Your task to perform on an android device: find snoozed emails in the gmail app Image 0: 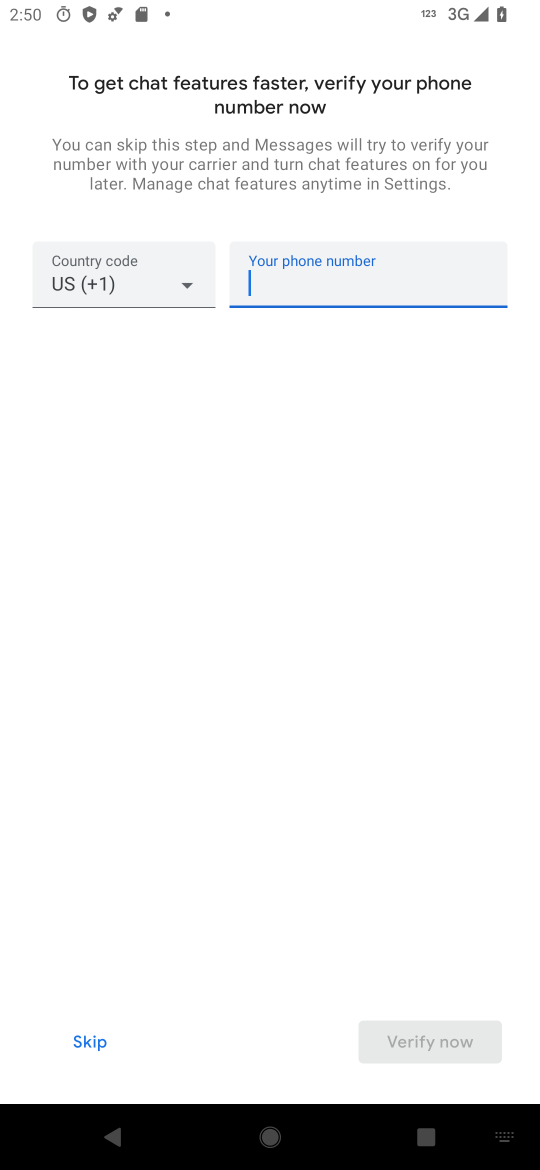
Step 0: press home button
Your task to perform on an android device: find snoozed emails in the gmail app Image 1: 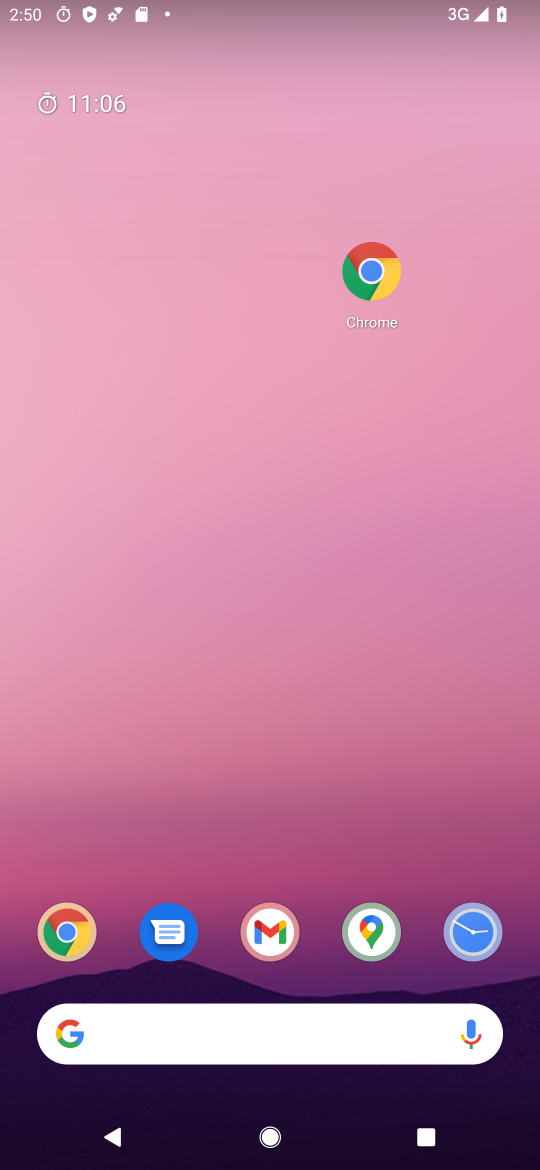
Step 1: drag from (395, 951) to (539, 764)
Your task to perform on an android device: find snoozed emails in the gmail app Image 2: 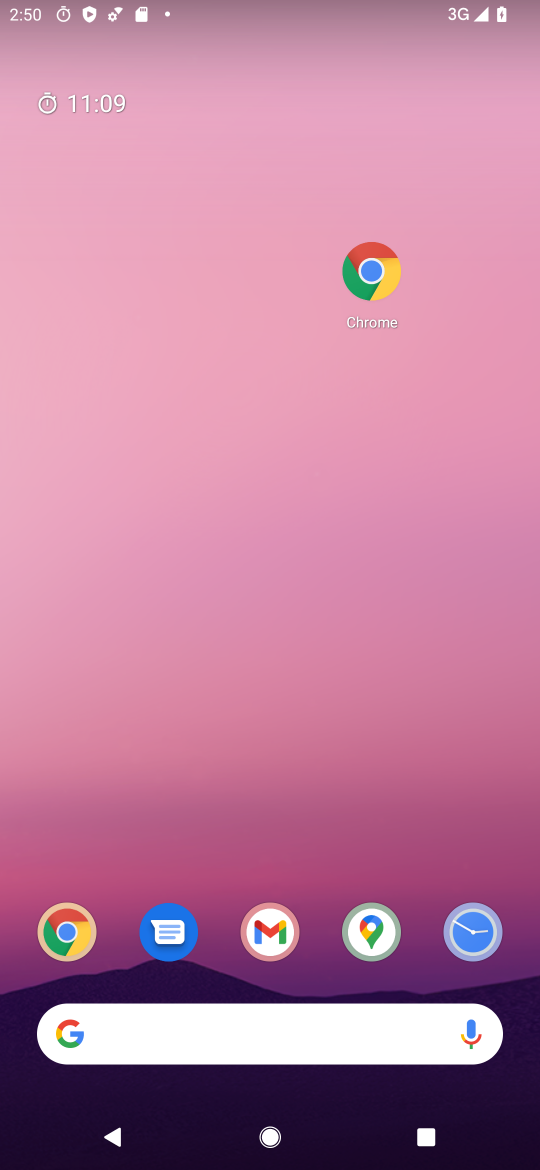
Step 2: drag from (323, 872) to (392, 43)
Your task to perform on an android device: find snoozed emails in the gmail app Image 3: 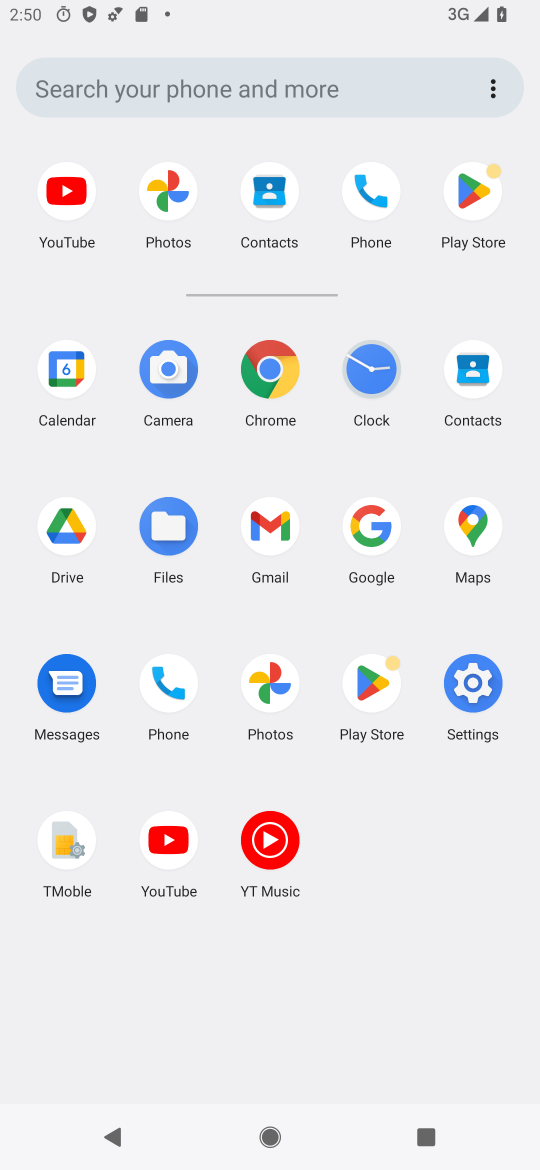
Step 3: click (265, 530)
Your task to perform on an android device: find snoozed emails in the gmail app Image 4: 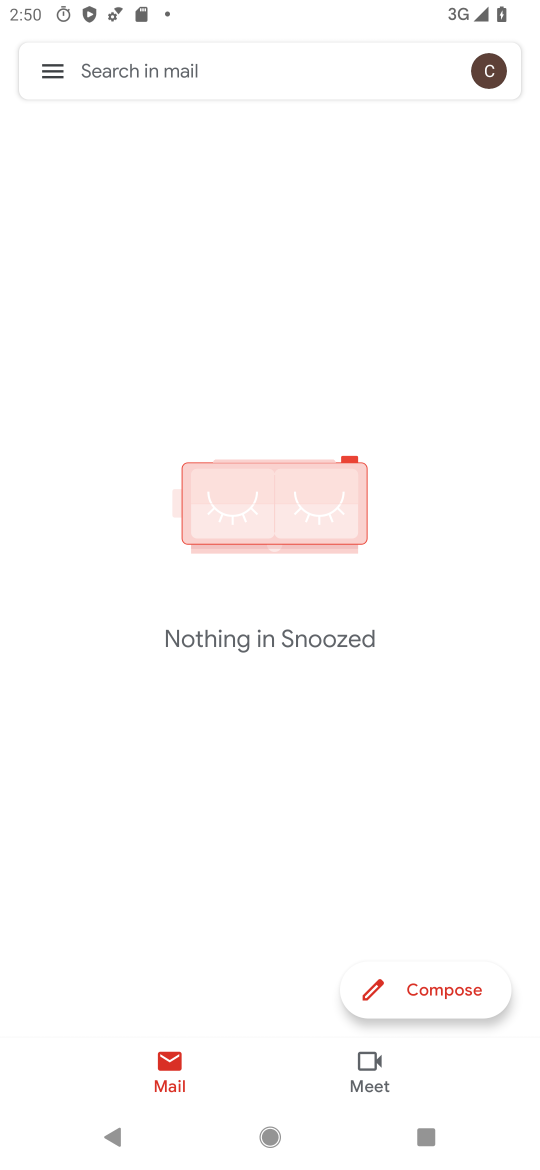
Step 4: click (40, 67)
Your task to perform on an android device: find snoozed emails in the gmail app Image 5: 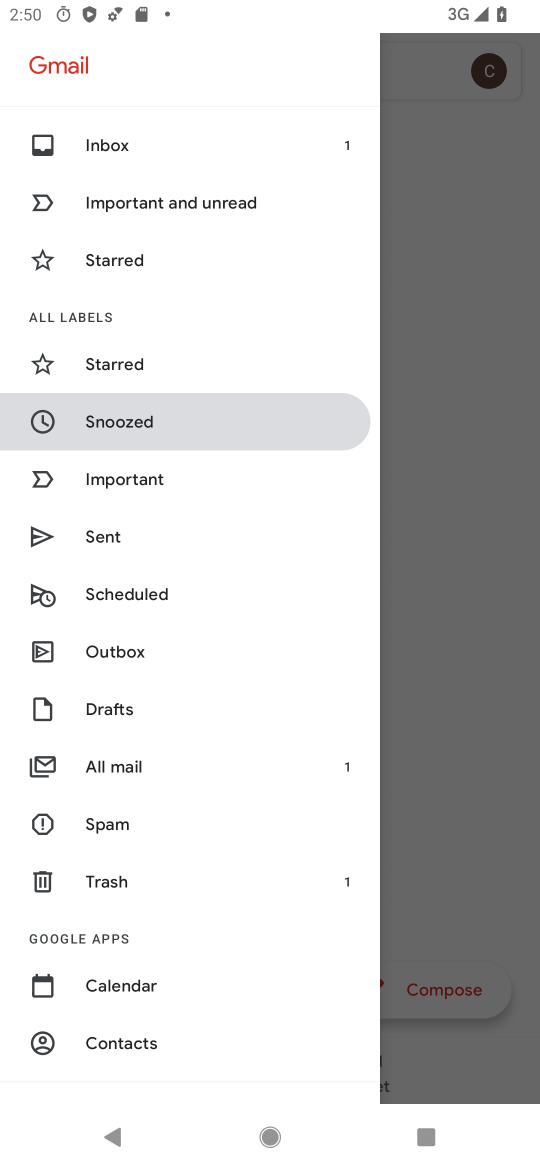
Step 5: task complete